Your task to perform on an android device: turn off notifications in google photos Image 0: 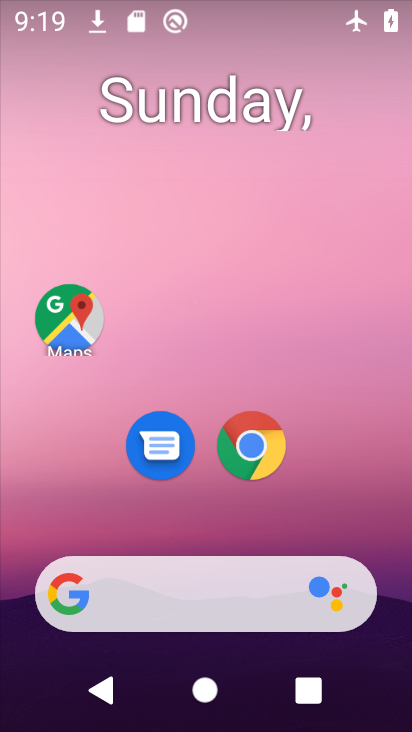
Step 0: drag from (314, 458) to (255, 6)
Your task to perform on an android device: turn off notifications in google photos Image 1: 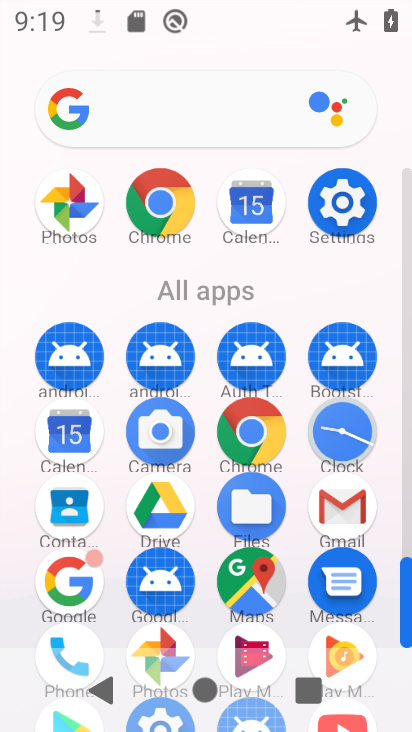
Step 1: drag from (20, 597) to (29, 303)
Your task to perform on an android device: turn off notifications in google photos Image 2: 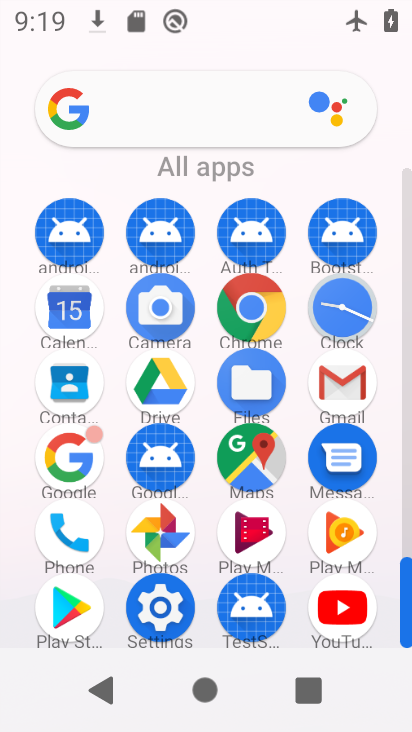
Step 2: click (161, 529)
Your task to perform on an android device: turn off notifications in google photos Image 3: 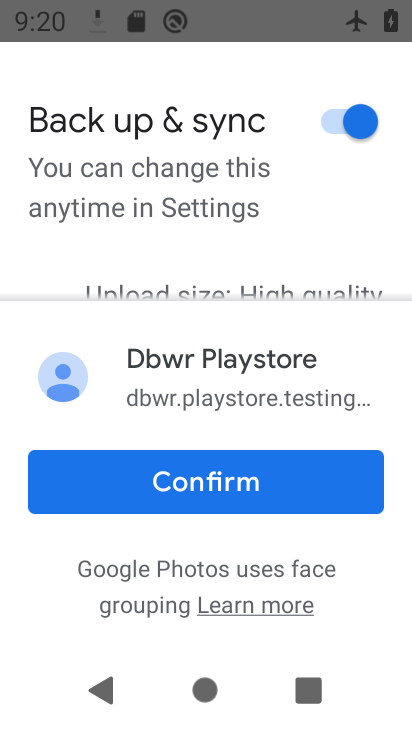
Step 3: click (271, 477)
Your task to perform on an android device: turn off notifications in google photos Image 4: 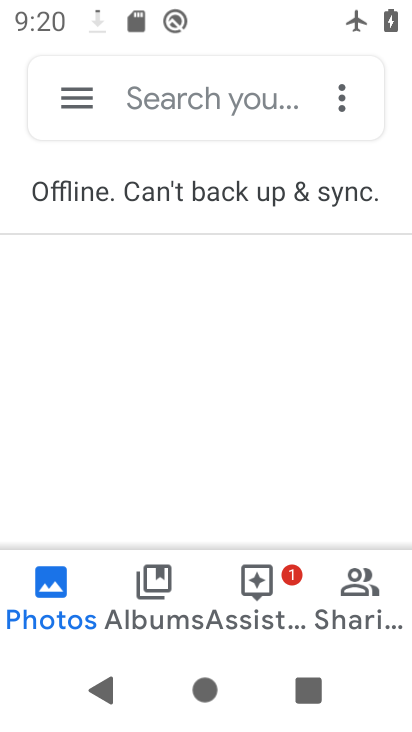
Step 4: click (63, 83)
Your task to perform on an android device: turn off notifications in google photos Image 5: 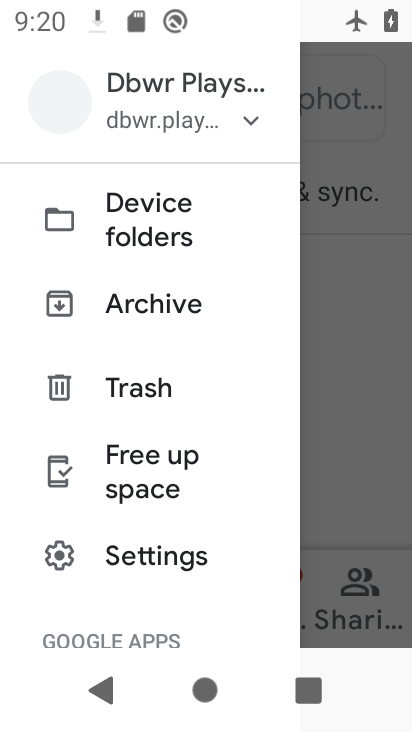
Step 5: drag from (189, 495) to (156, 157)
Your task to perform on an android device: turn off notifications in google photos Image 6: 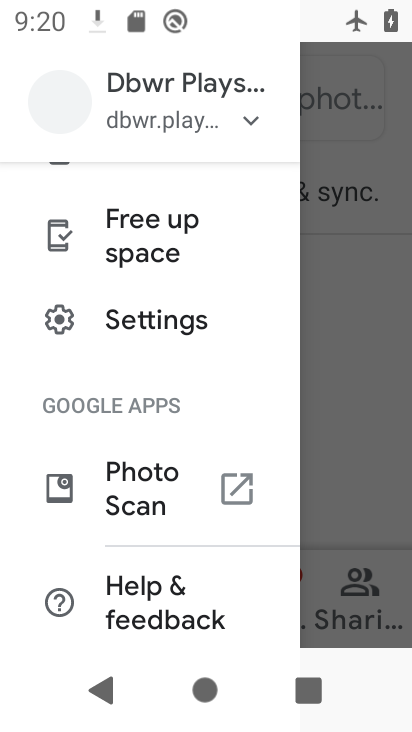
Step 6: drag from (140, 431) to (184, 182)
Your task to perform on an android device: turn off notifications in google photos Image 7: 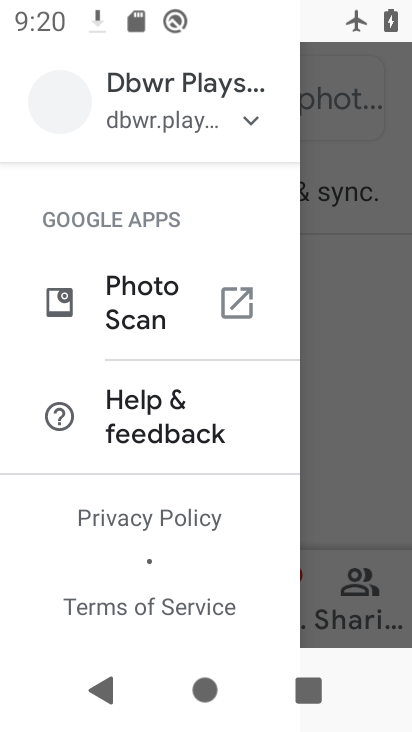
Step 7: drag from (176, 229) to (182, 582)
Your task to perform on an android device: turn off notifications in google photos Image 8: 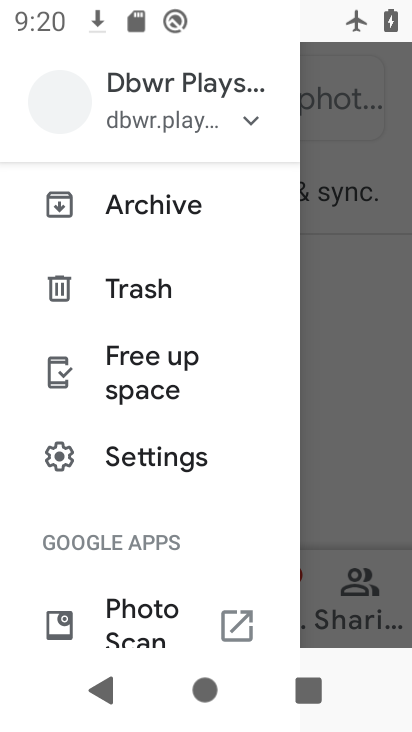
Step 8: click (139, 445)
Your task to perform on an android device: turn off notifications in google photos Image 9: 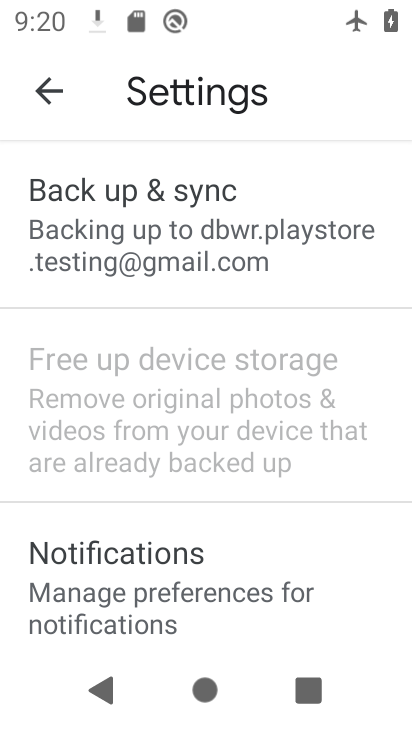
Step 9: drag from (276, 526) to (299, 163)
Your task to perform on an android device: turn off notifications in google photos Image 10: 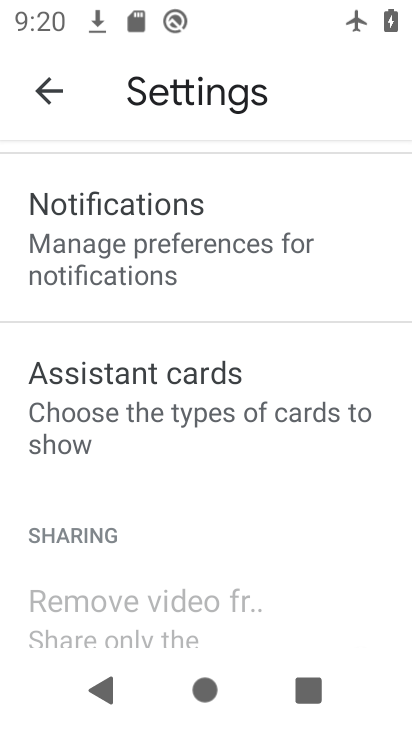
Step 10: click (271, 246)
Your task to perform on an android device: turn off notifications in google photos Image 11: 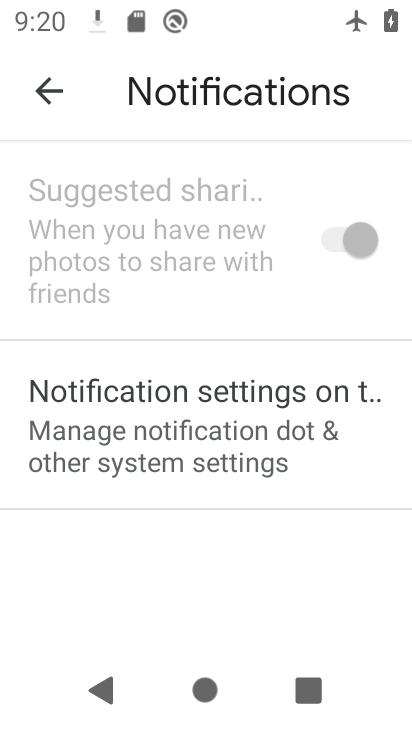
Step 11: click (234, 407)
Your task to perform on an android device: turn off notifications in google photos Image 12: 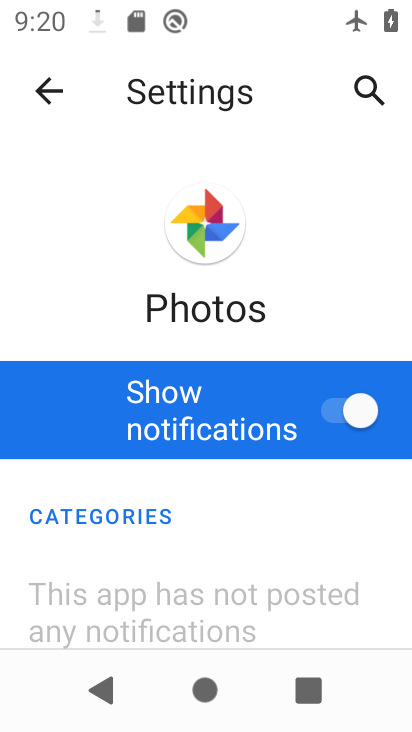
Step 12: click (355, 408)
Your task to perform on an android device: turn off notifications in google photos Image 13: 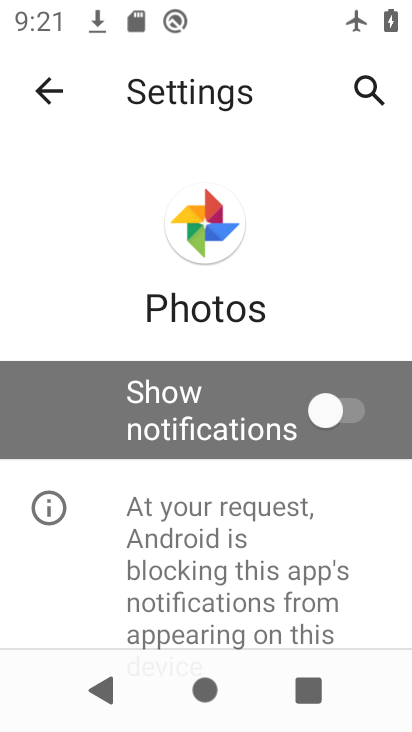
Step 13: task complete